Your task to perform on an android device: Go to settings Image 0: 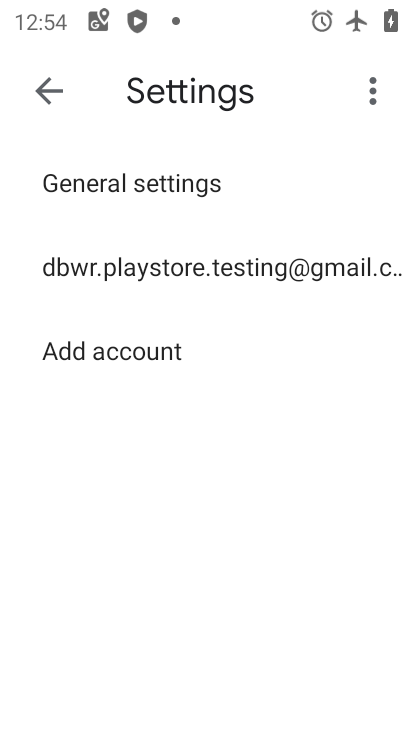
Step 0: press home button
Your task to perform on an android device: Go to settings Image 1: 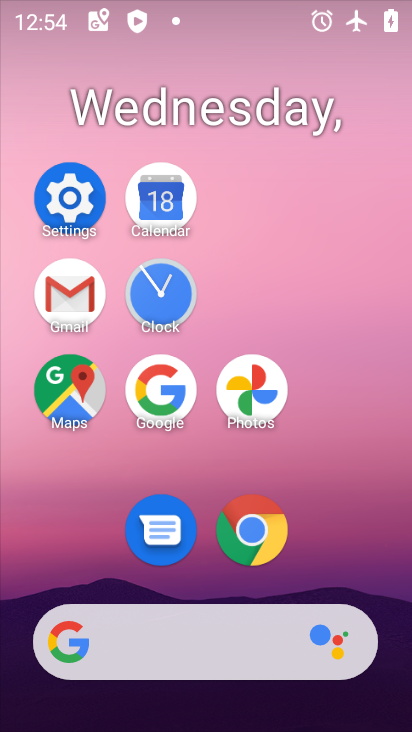
Step 1: click (66, 184)
Your task to perform on an android device: Go to settings Image 2: 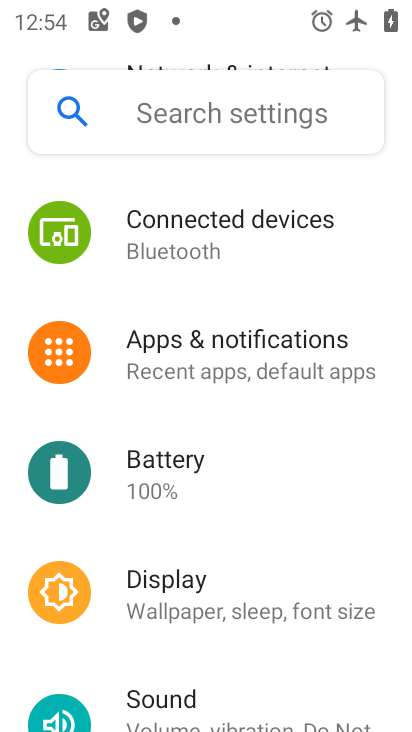
Step 2: task complete